Your task to perform on an android device: show emergency info Image 0: 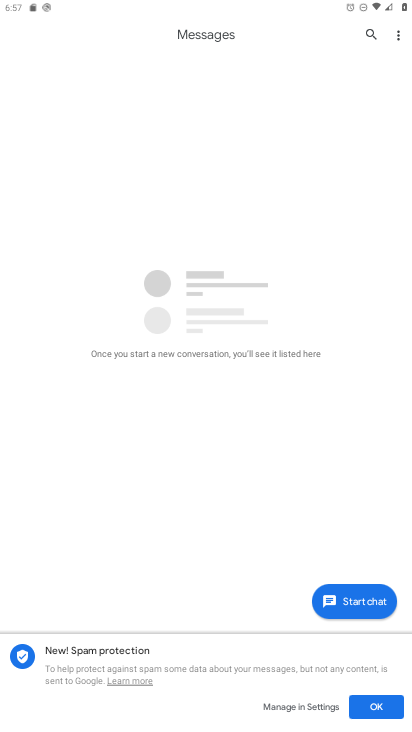
Step 0: press home button
Your task to perform on an android device: show emergency info Image 1: 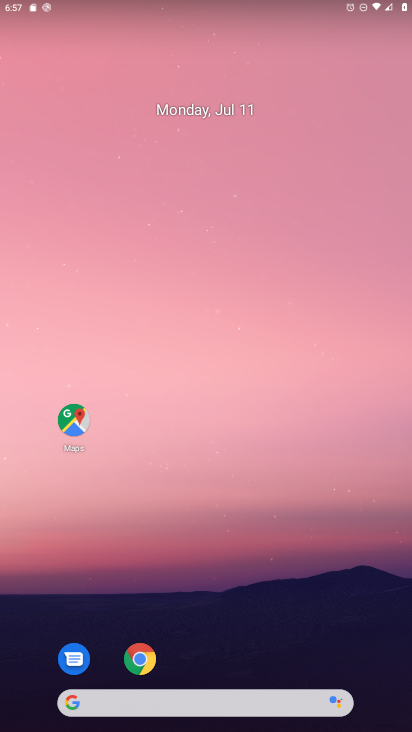
Step 1: drag from (340, 645) to (285, 126)
Your task to perform on an android device: show emergency info Image 2: 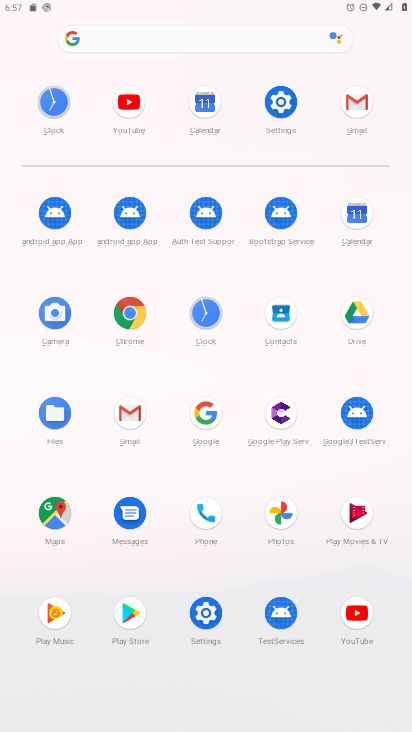
Step 2: click (207, 614)
Your task to perform on an android device: show emergency info Image 3: 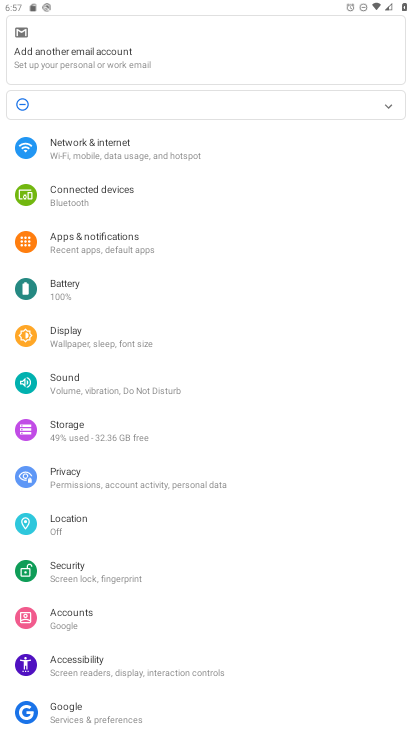
Step 3: drag from (260, 673) to (270, 261)
Your task to perform on an android device: show emergency info Image 4: 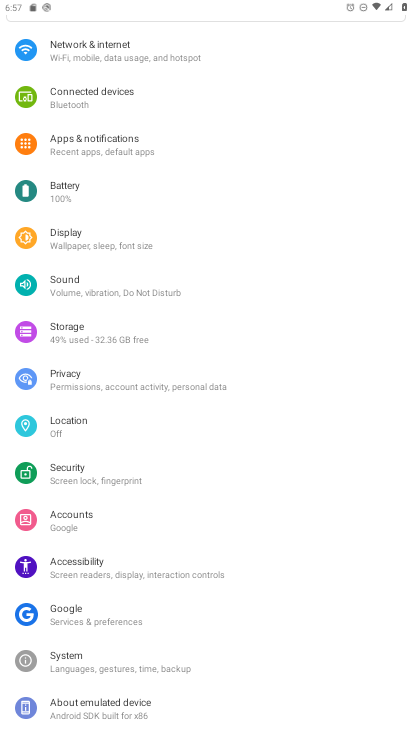
Step 4: drag from (246, 691) to (269, 279)
Your task to perform on an android device: show emergency info Image 5: 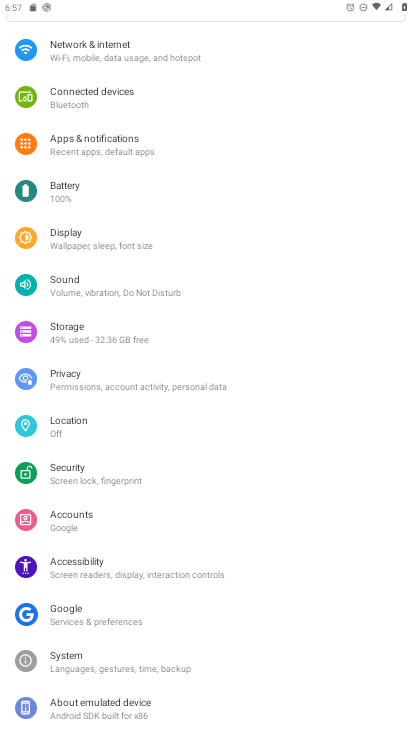
Step 5: click (78, 706)
Your task to perform on an android device: show emergency info Image 6: 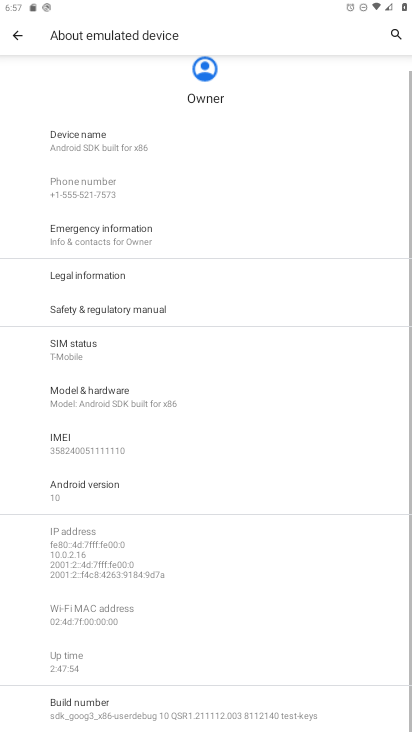
Step 6: click (103, 236)
Your task to perform on an android device: show emergency info Image 7: 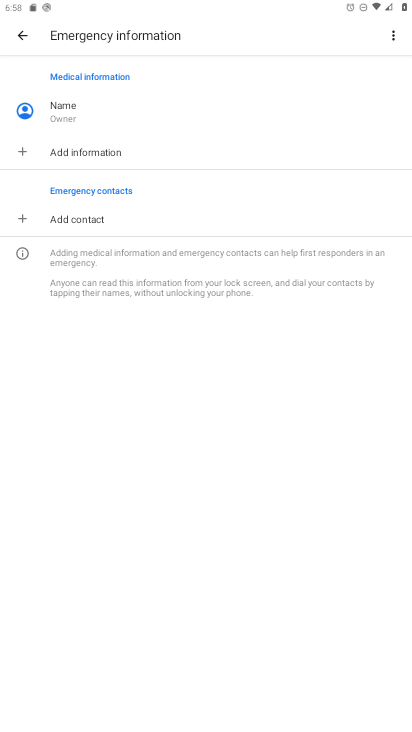
Step 7: task complete